Your task to perform on an android device: Is it going to rain tomorrow? Image 0: 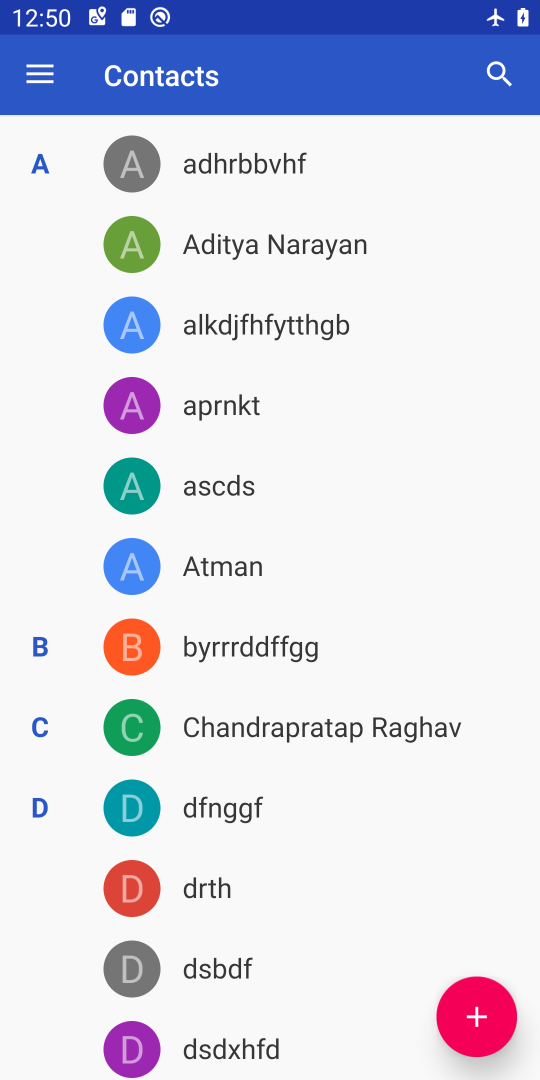
Step 0: press home button
Your task to perform on an android device: Is it going to rain tomorrow? Image 1: 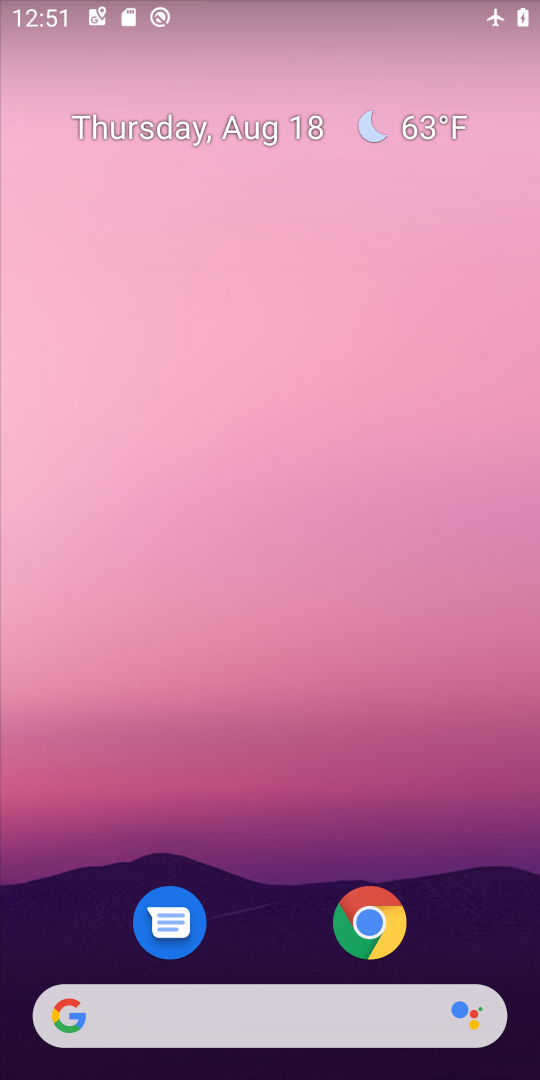
Step 1: click (159, 1002)
Your task to perform on an android device: Is it going to rain tomorrow? Image 2: 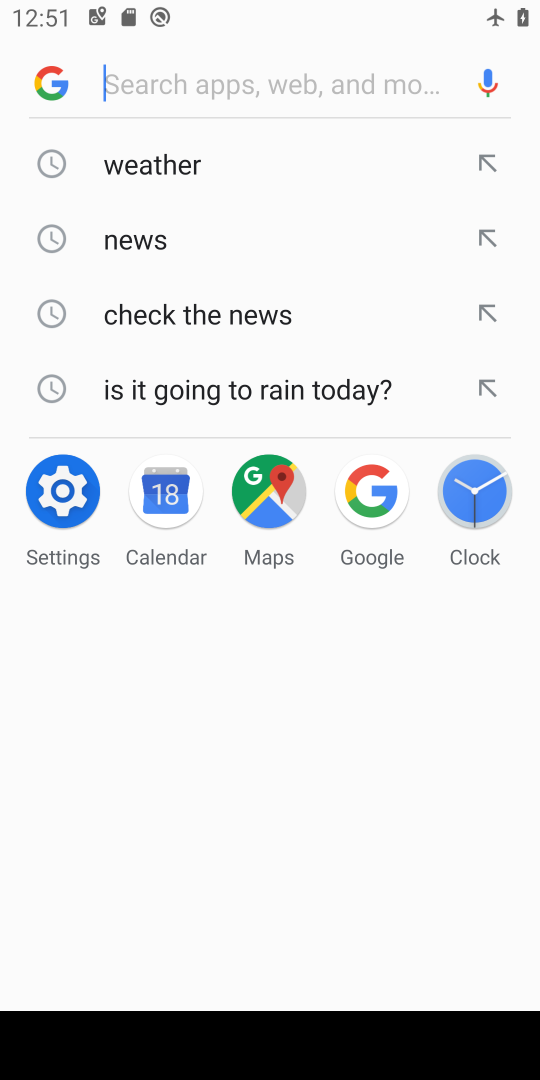
Step 2: click (120, 157)
Your task to perform on an android device: Is it going to rain tomorrow? Image 3: 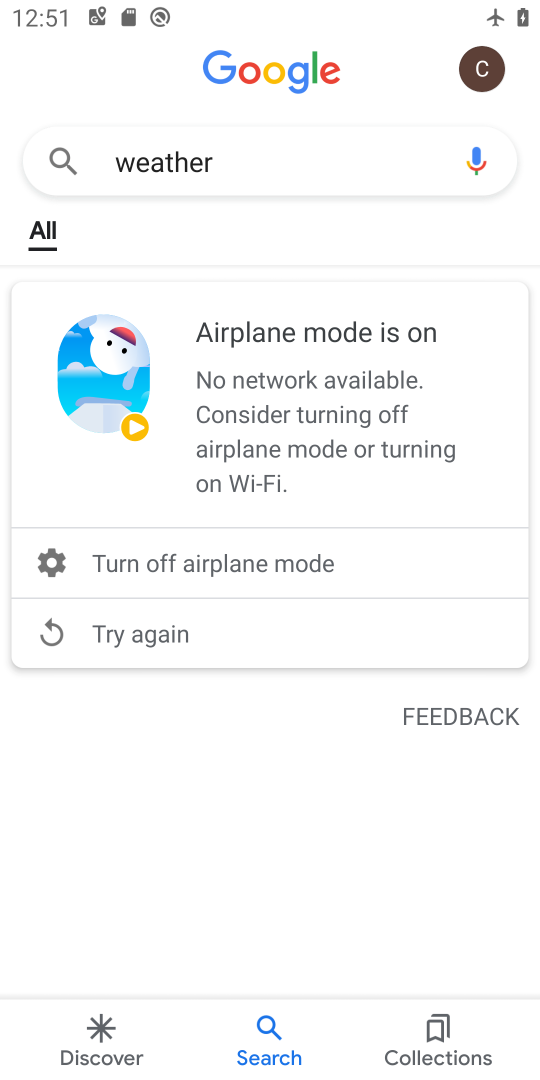
Step 3: task complete